Your task to perform on an android device: check google app version Image 0: 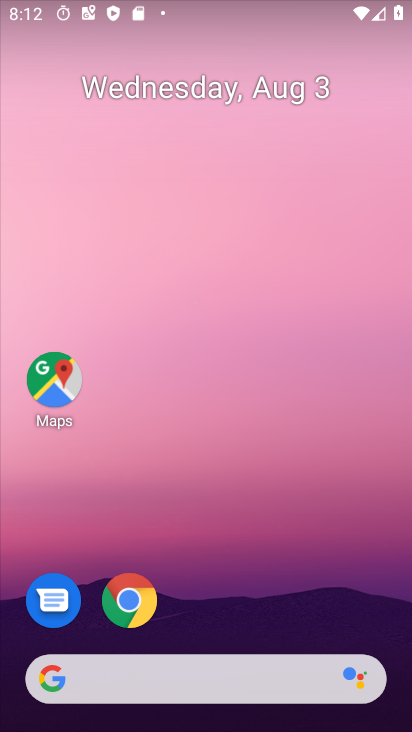
Step 0: click (51, 677)
Your task to perform on an android device: check google app version Image 1: 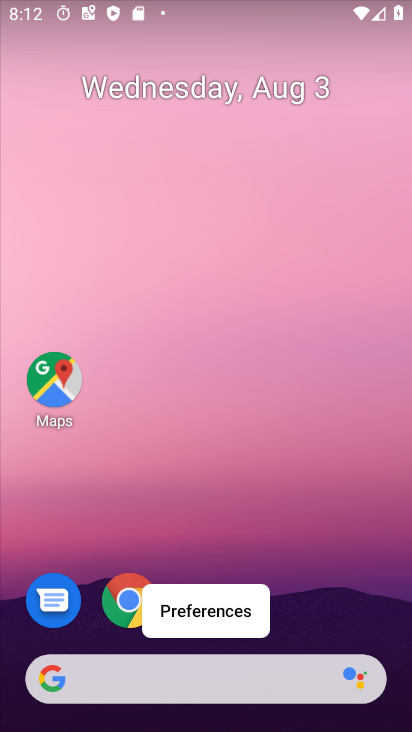
Step 1: click (39, 686)
Your task to perform on an android device: check google app version Image 2: 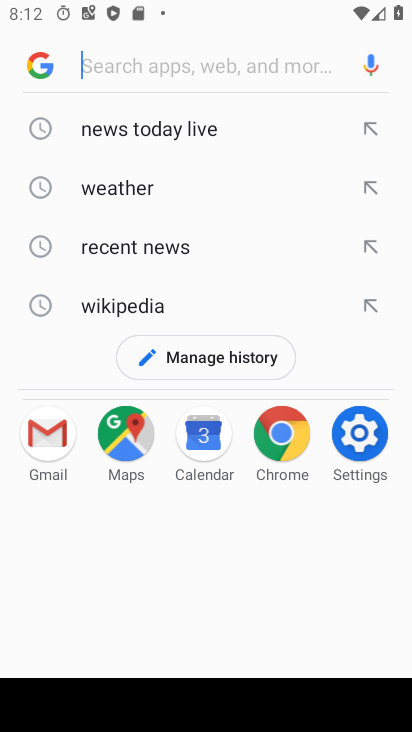
Step 2: click (46, 67)
Your task to perform on an android device: check google app version Image 3: 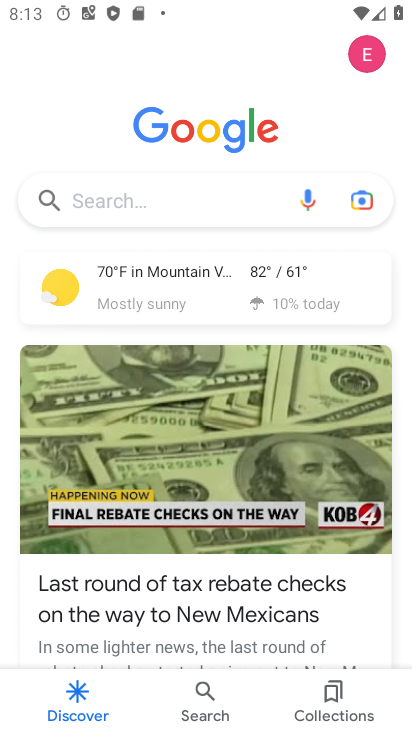
Step 3: click (376, 54)
Your task to perform on an android device: check google app version Image 4: 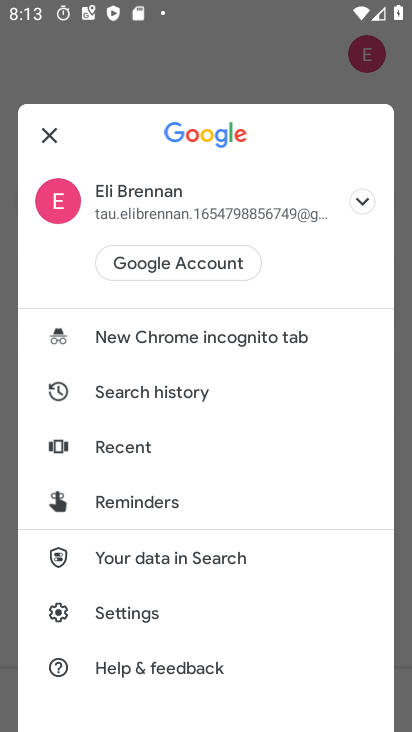
Step 4: click (122, 617)
Your task to perform on an android device: check google app version Image 5: 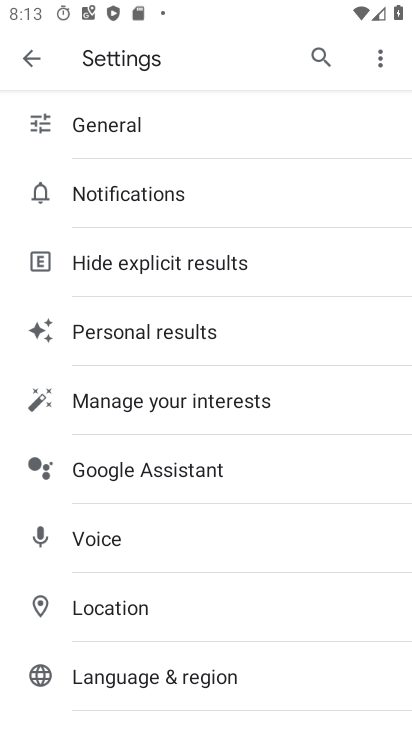
Step 5: drag from (125, 616) to (171, 290)
Your task to perform on an android device: check google app version Image 6: 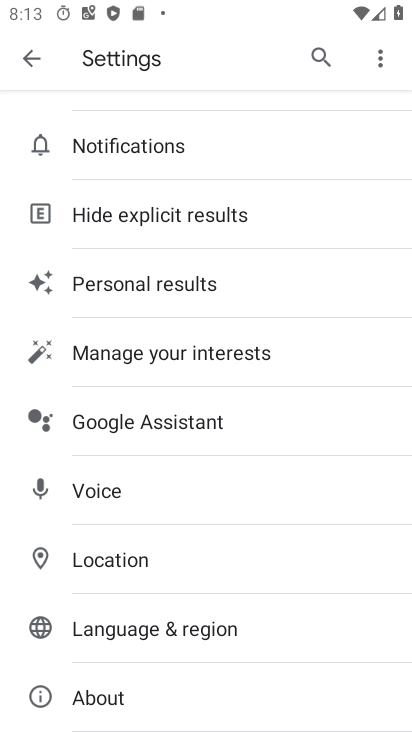
Step 6: click (123, 700)
Your task to perform on an android device: check google app version Image 7: 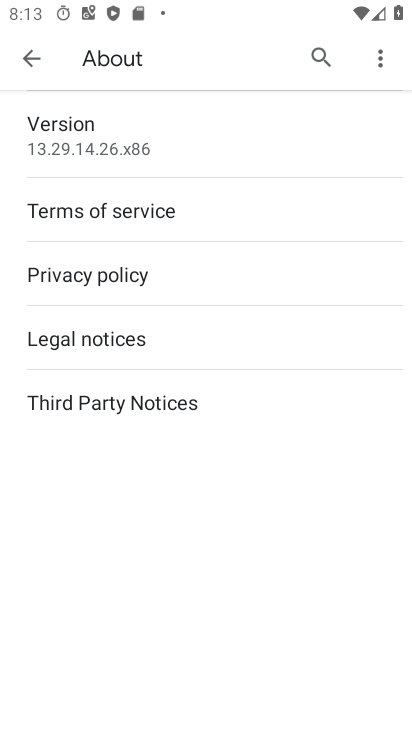
Step 7: task complete